Your task to perform on an android device: turn off airplane mode Image 0: 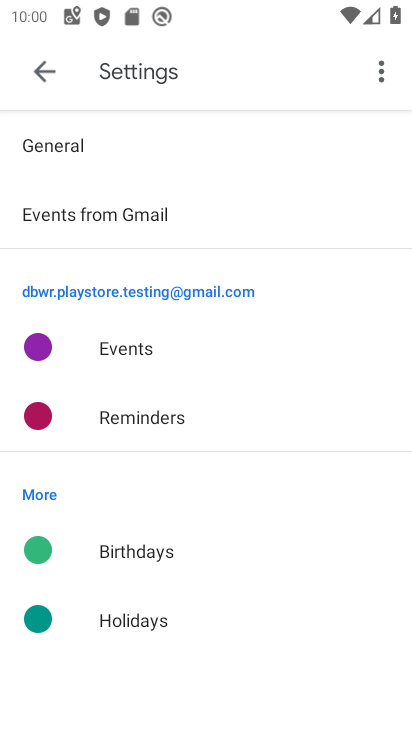
Step 0: press home button
Your task to perform on an android device: turn off airplane mode Image 1: 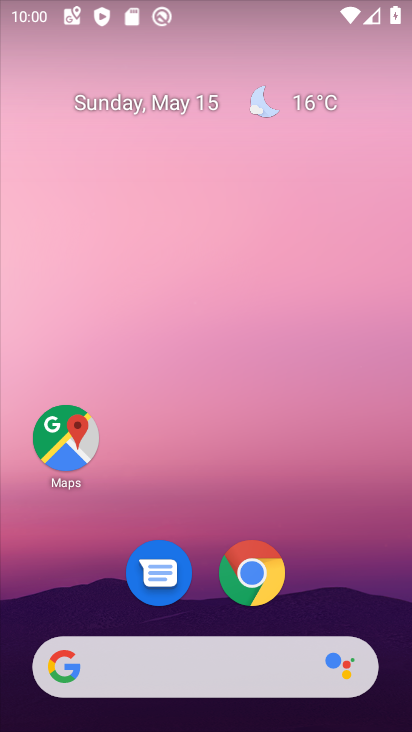
Step 1: task complete